Your task to perform on an android device: toggle data saver in the chrome app Image 0: 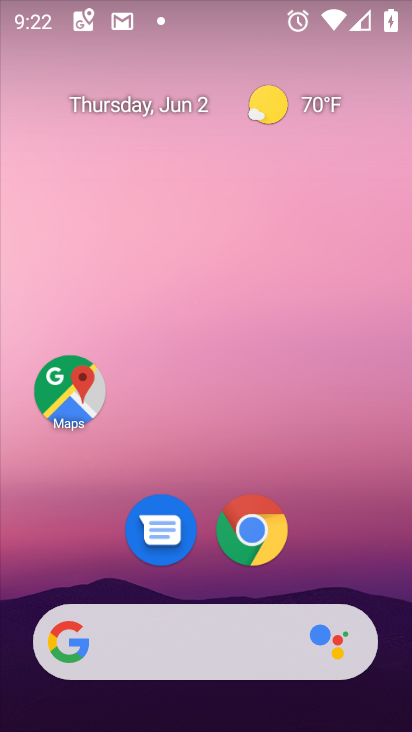
Step 0: click (268, 524)
Your task to perform on an android device: toggle data saver in the chrome app Image 1: 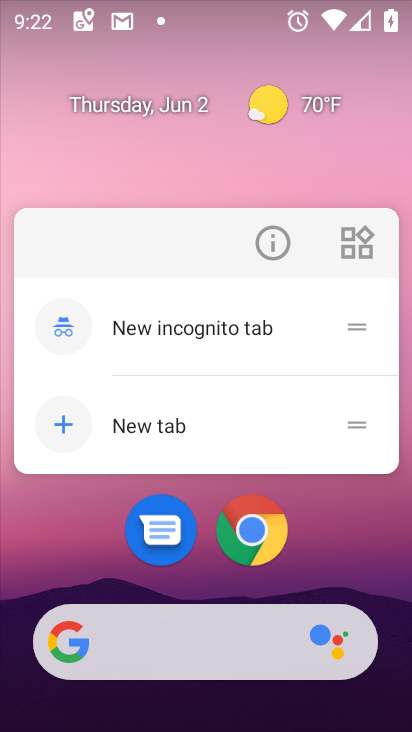
Step 1: click (251, 530)
Your task to perform on an android device: toggle data saver in the chrome app Image 2: 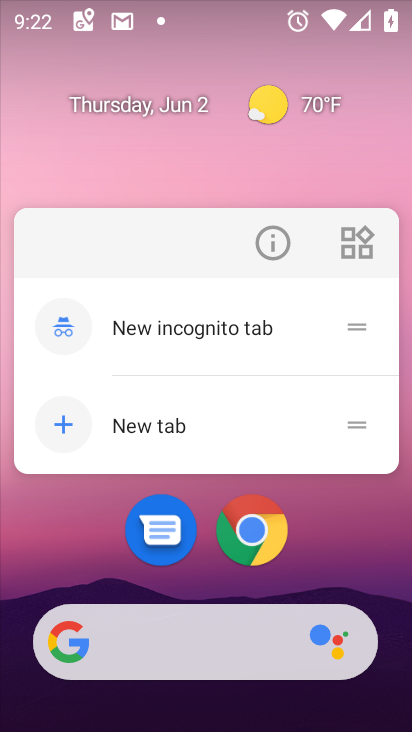
Step 2: click (248, 541)
Your task to perform on an android device: toggle data saver in the chrome app Image 3: 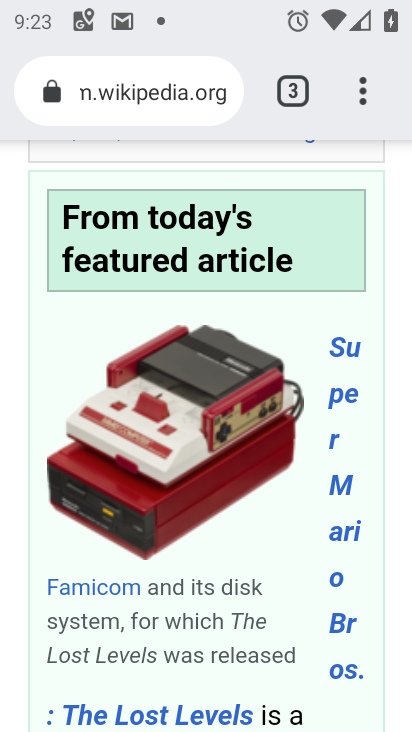
Step 3: click (362, 94)
Your task to perform on an android device: toggle data saver in the chrome app Image 4: 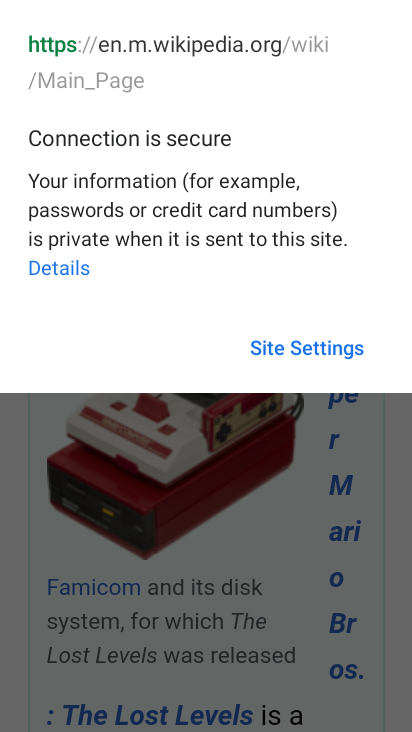
Step 4: click (80, 480)
Your task to perform on an android device: toggle data saver in the chrome app Image 5: 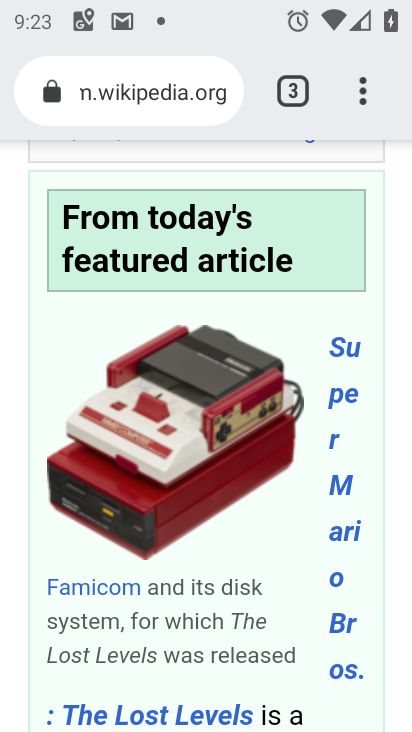
Step 5: click (285, 89)
Your task to perform on an android device: toggle data saver in the chrome app Image 6: 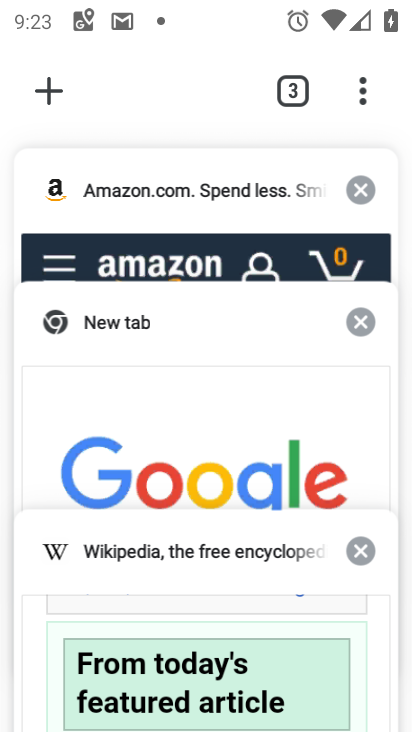
Step 6: click (351, 190)
Your task to perform on an android device: toggle data saver in the chrome app Image 7: 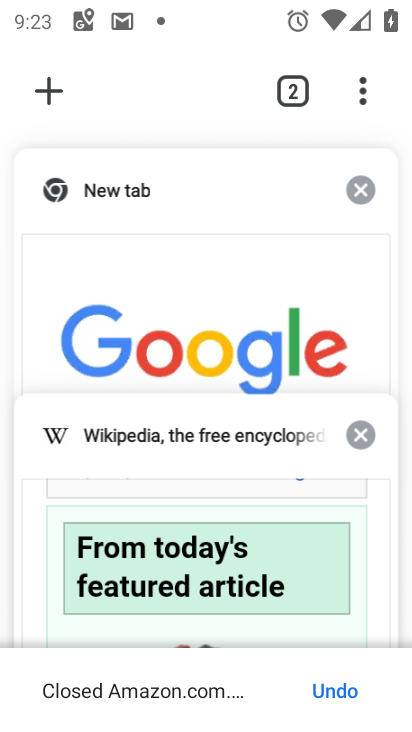
Step 7: click (351, 194)
Your task to perform on an android device: toggle data saver in the chrome app Image 8: 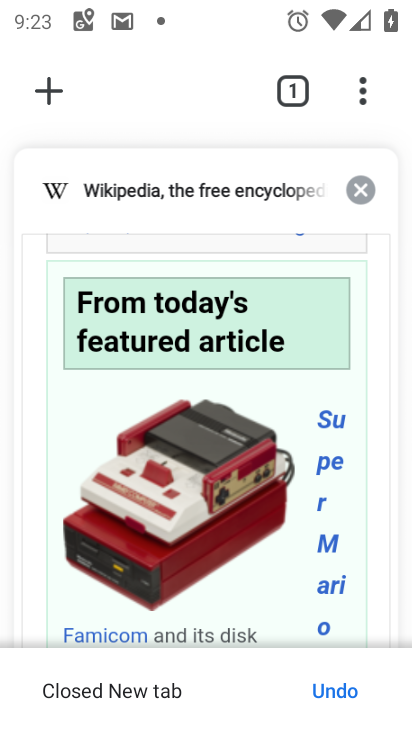
Step 8: click (359, 196)
Your task to perform on an android device: toggle data saver in the chrome app Image 9: 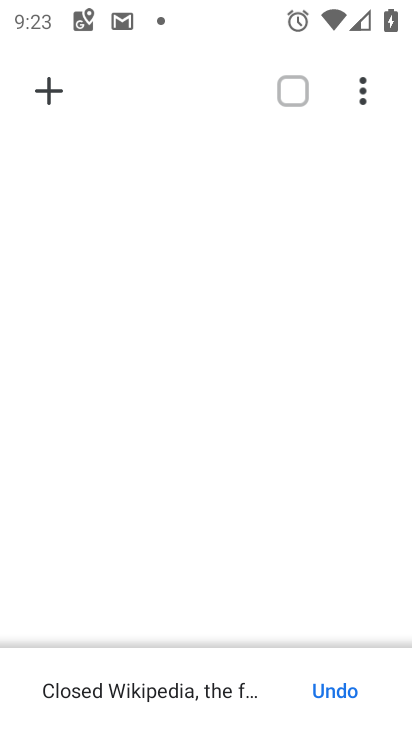
Step 9: click (358, 86)
Your task to perform on an android device: toggle data saver in the chrome app Image 10: 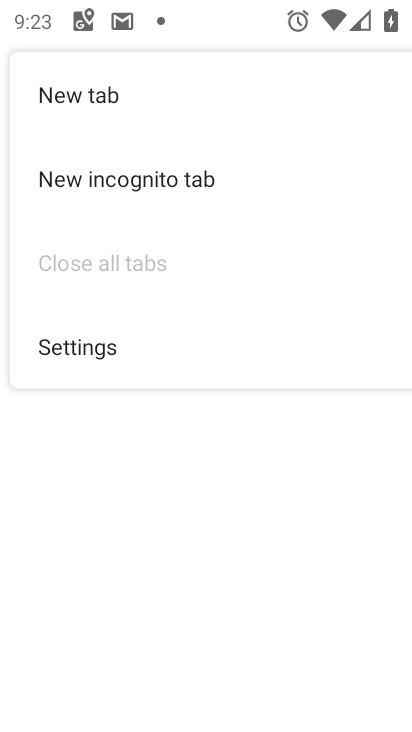
Step 10: click (94, 341)
Your task to perform on an android device: toggle data saver in the chrome app Image 11: 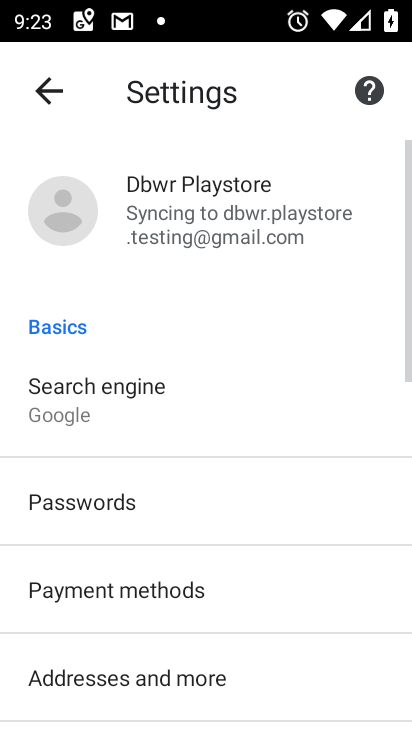
Step 11: drag from (104, 698) to (122, 279)
Your task to perform on an android device: toggle data saver in the chrome app Image 12: 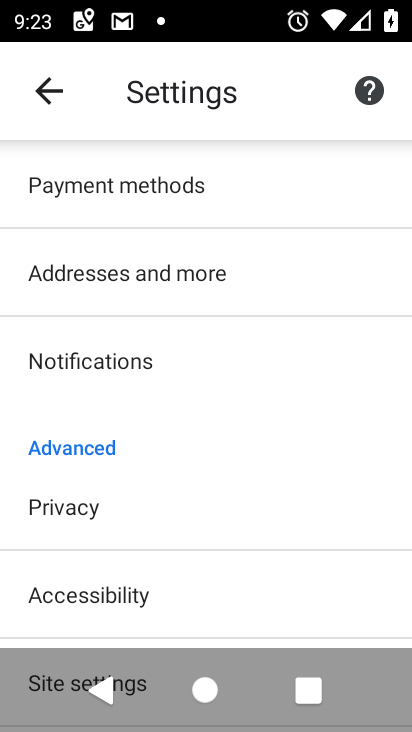
Step 12: drag from (127, 541) to (146, 300)
Your task to perform on an android device: toggle data saver in the chrome app Image 13: 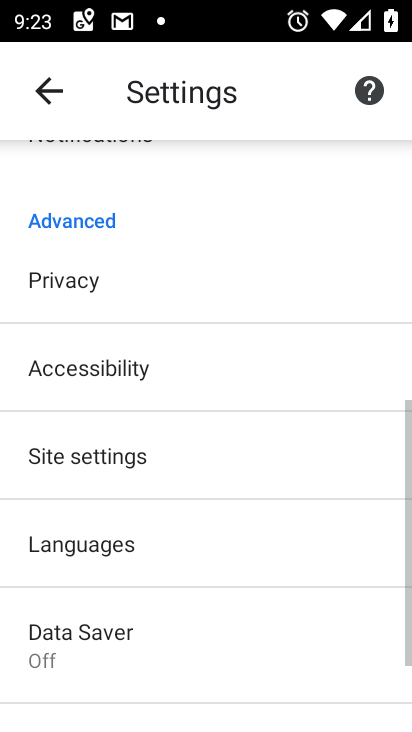
Step 13: click (84, 639)
Your task to perform on an android device: toggle data saver in the chrome app Image 14: 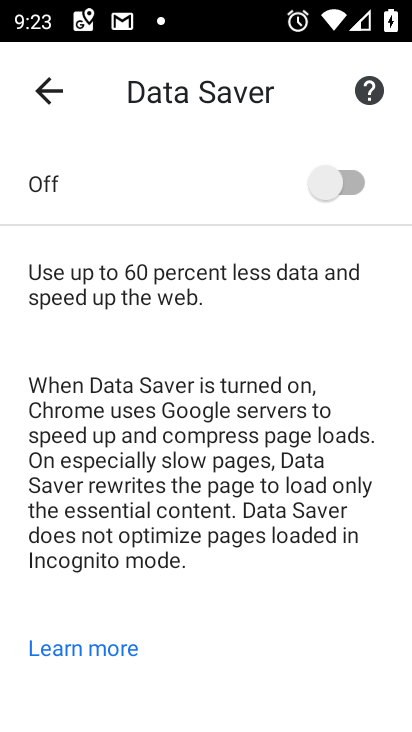
Step 14: click (343, 175)
Your task to perform on an android device: toggle data saver in the chrome app Image 15: 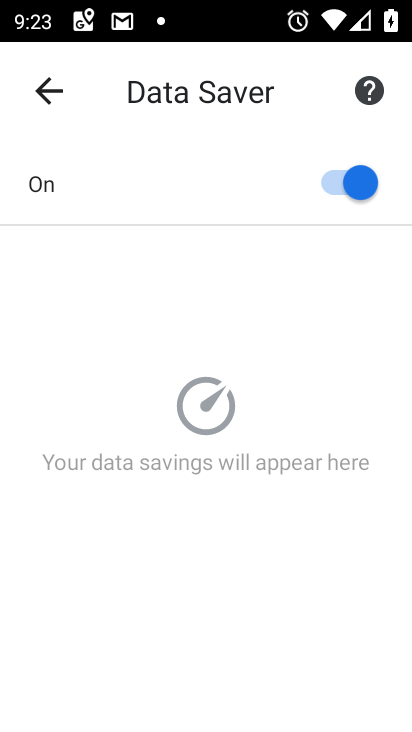
Step 15: task complete